Your task to perform on an android device: What is the recent news? Image 0: 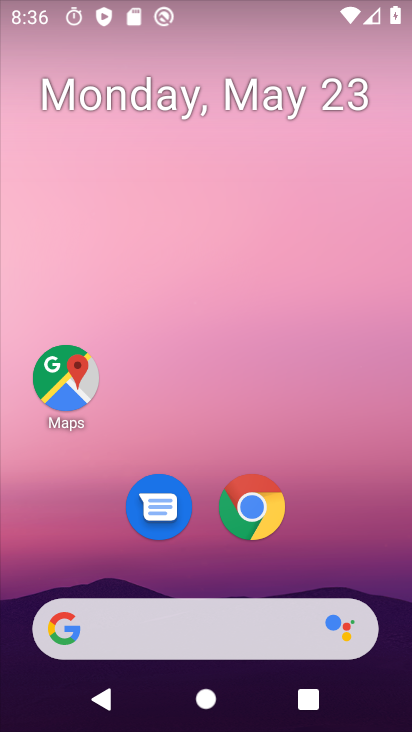
Step 0: drag from (388, 307) to (358, 4)
Your task to perform on an android device: What is the recent news? Image 1: 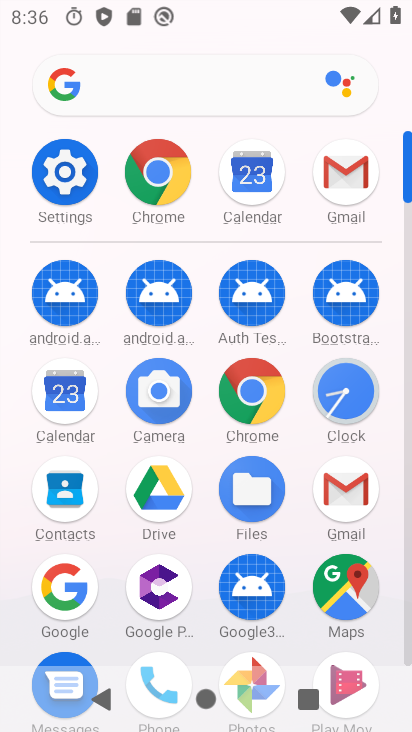
Step 1: click (144, 169)
Your task to perform on an android device: What is the recent news? Image 2: 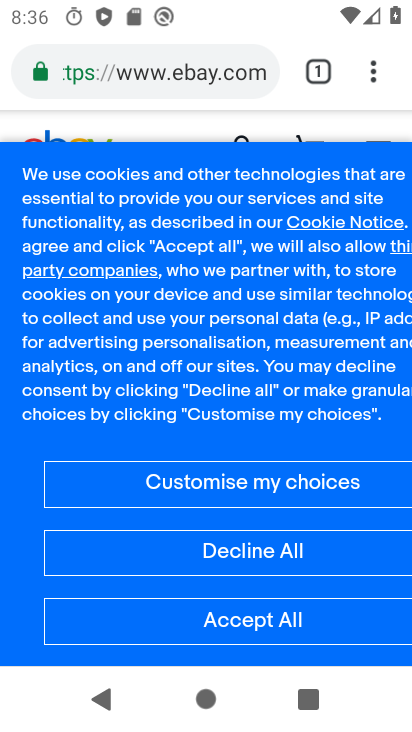
Step 2: drag from (372, 75) to (95, 151)
Your task to perform on an android device: What is the recent news? Image 3: 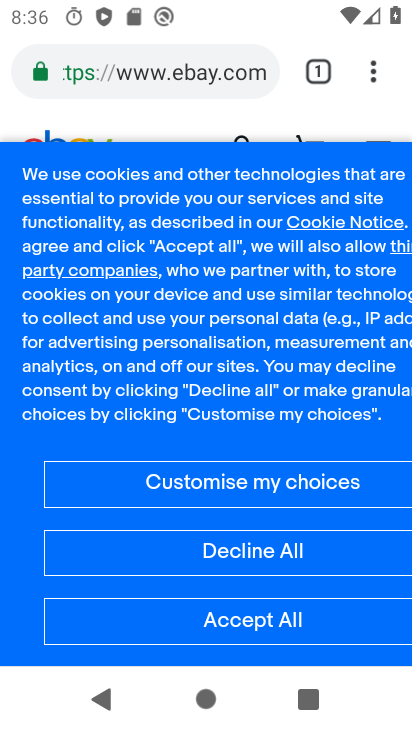
Step 3: click (97, 146)
Your task to perform on an android device: What is the recent news? Image 4: 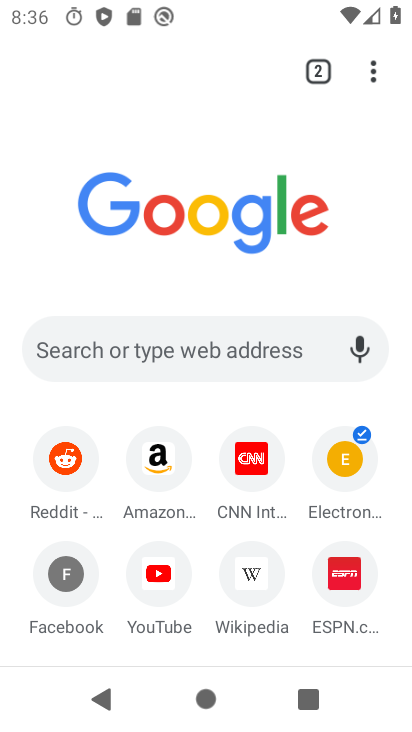
Step 4: drag from (320, 566) to (222, 37)
Your task to perform on an android device: What is the recent news? Image 5: 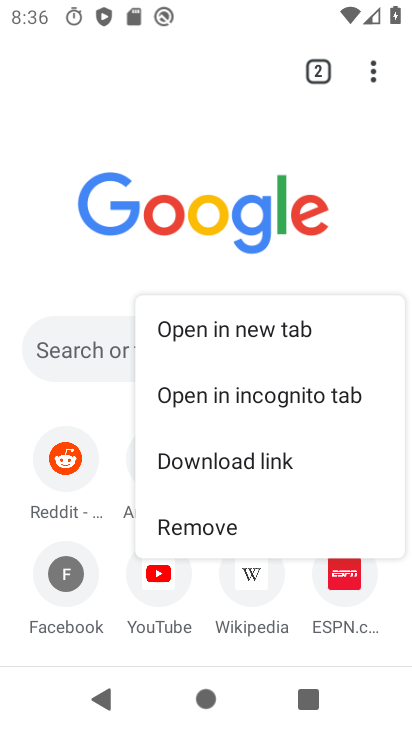
Step 5: click (47, 661)
Your task to perform on an android device: What is the recent news? Image 6: 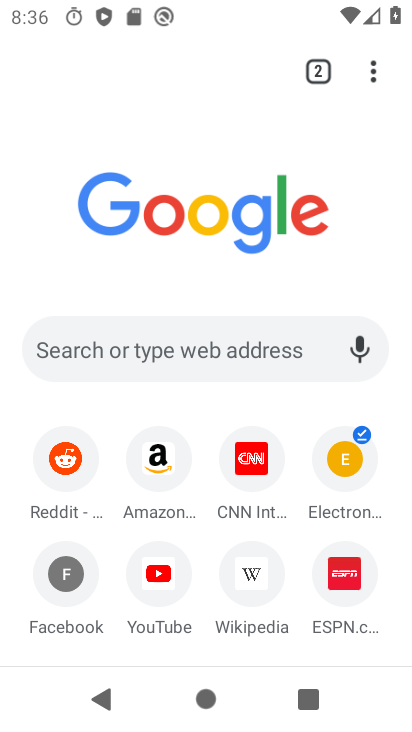
Step 6: task complete